Your task to perform on an android device: turn vacation reply on in the gmail app Image 0: 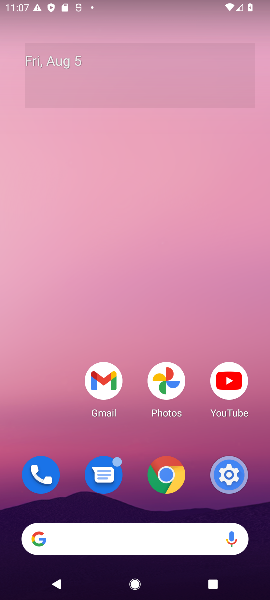
Step 0: click (103, 385)
Your task to perform on an android device: turn vacation reply on in the gmail app Image 1: 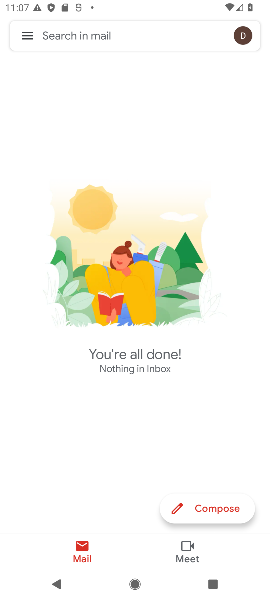
Step 1: click (25, 24)
Your task to perform on an android device: turn vacation reply on in the gmail app Image 2: 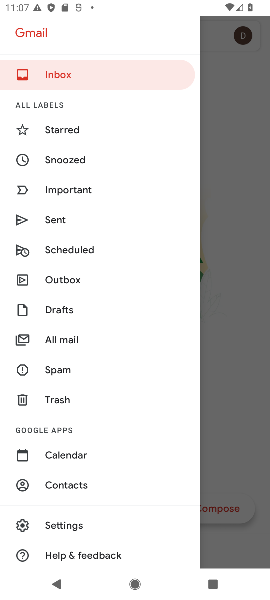
Step 2: click (75, 527)
Your task to perform on an android device: turn vacation reply on in the gmail app Image 3: 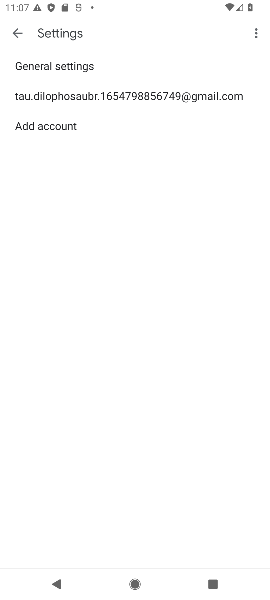
Step 3: click (146, 95)
Your task to perform on an android device: turn vacation reply on in the gmail app Image 4: 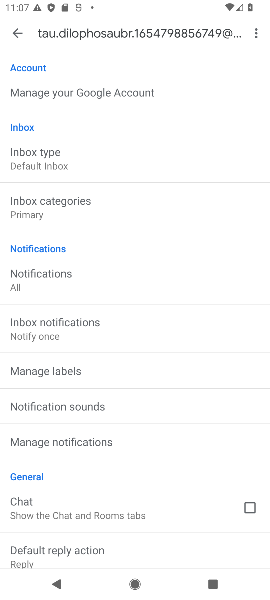
Step 4: drag from (102, 468) to (104, 249)
Your task to perform on an android device: turn vacation reply on in the gmail app Image 5: 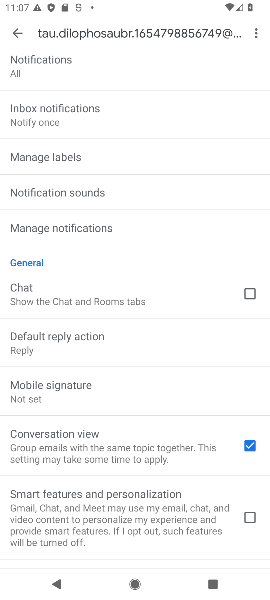
Step 5: drag from (102, 486) to (141, 127)
Your task to perform on an android device: turn vacation reply on in the gmail app Image 6: 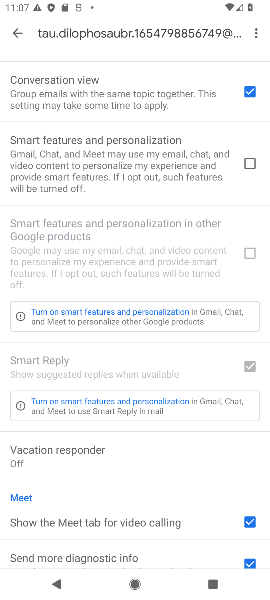
Step 6: click (83, 455)
Your task to perform on an android device: turn vacation reply on in the gmail app Image 7: 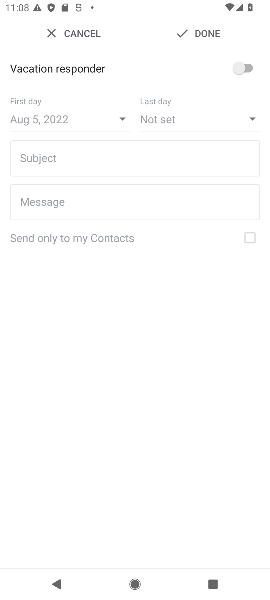
Step 7: click (253, 64)
Your task to perform on an android device: turn vacation reply on in the gmail app Image 8: 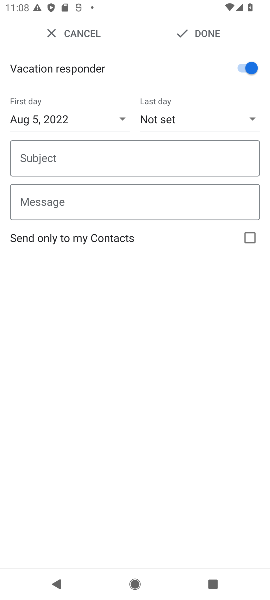
Step 8: click (46, 204)
Your task to perform on an android device: turn vacation reply on in the gmail app Image 9: 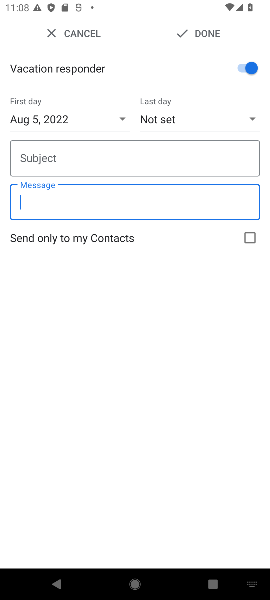
Step 9: type ""
Your task to perform on an android device: turn vacation reply on in the gmail app Image 10: 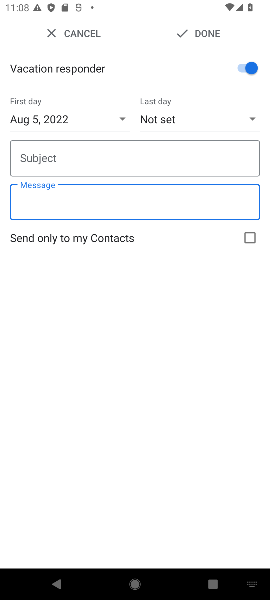
Step 10: type "Message"
Your task to perform on an android device: turn vacation reply on in the gmail app Image 11: 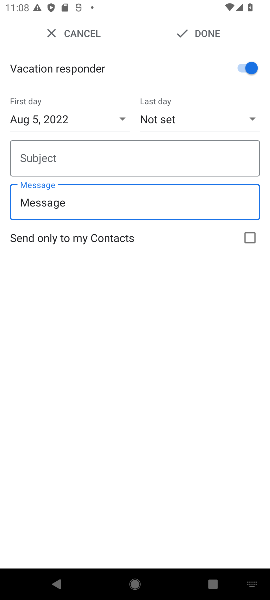
Step 11: click (203, 33)
Your task to perform on an android device: turn vacation reply on in the gmail app Image 12: 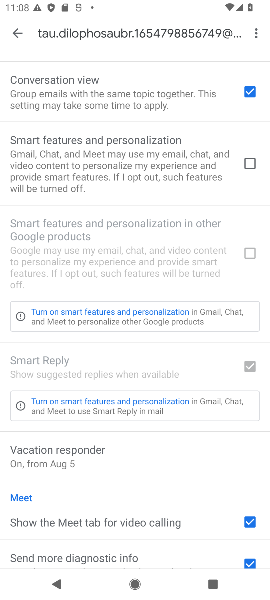
Step 12: task complete